Your task to perform on an android device: Go to Reddit.com Image 0: 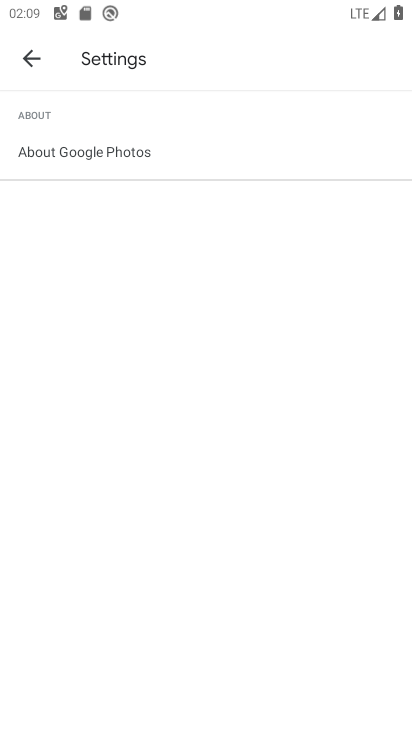
Step 0: press home button
Your task to perform on an android device: Go to Reddit.com Image 1: 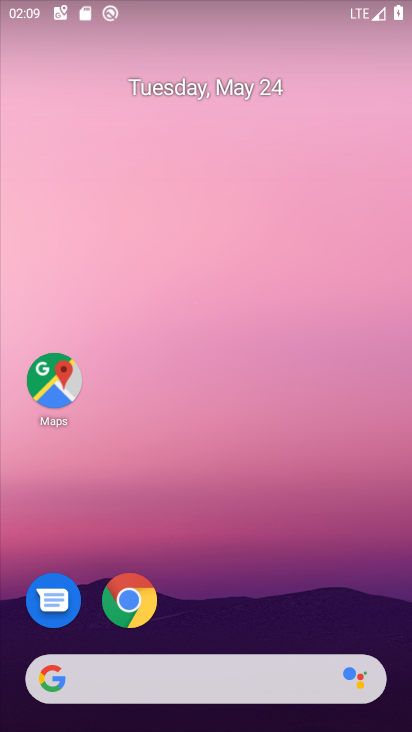
Step 1: click (139, 608)
Your task to perform on an android device: Go to Reddit.com Image 2: 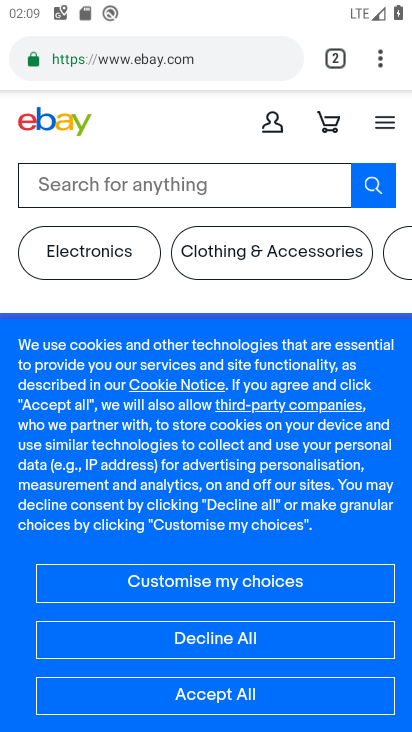
Step 2: click (344, 46)
Your task to perform on an android device: Go to Reddit.com Image 3: 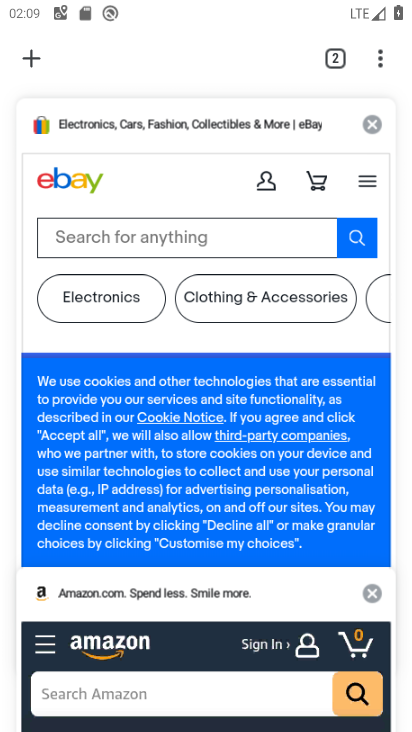
Step 3: click (30, 55)
Your task to perform on an android device: Go to Reddit.com Image 4: 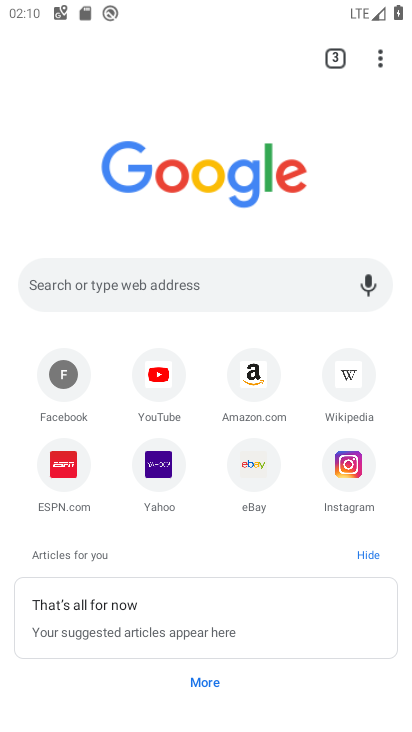
Step 4: click (185, 288)
Your task to perform on an android device: Go to Reddit.com Image 5: 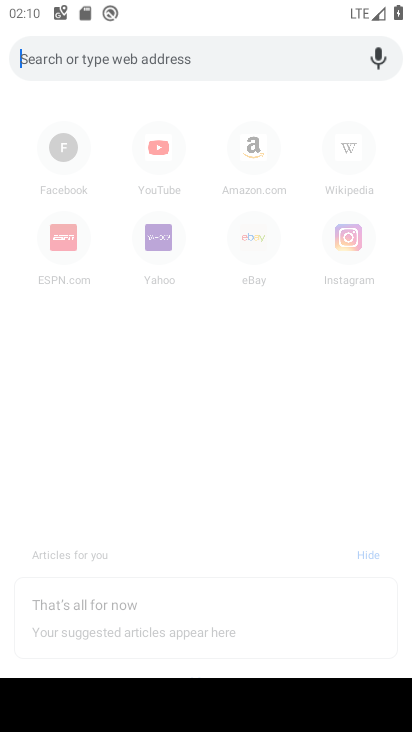
Step 5: type "Reddit.com"
Your task to perform on an android device: Go to Reddit.com Image 6: 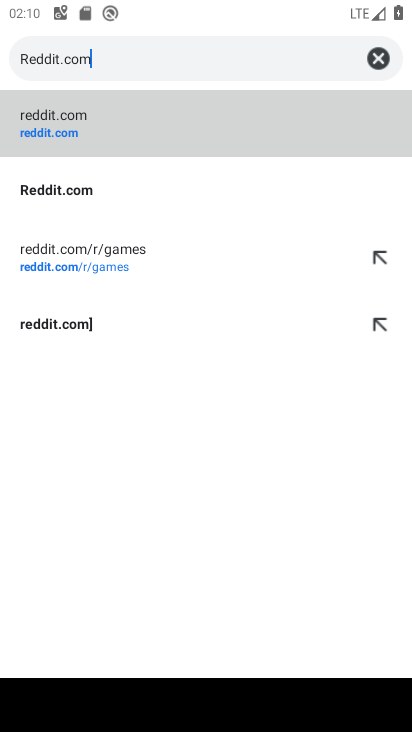
Step 6: click (243, 136)
Your task to perform on an android device: Go to Reddit.com Image 7: 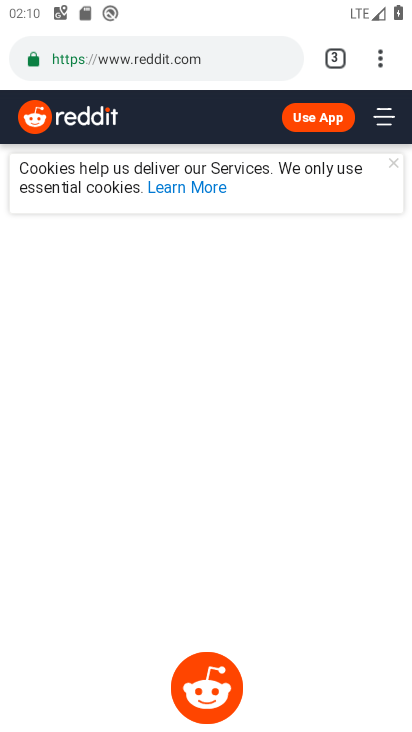
Step 7: task complete